Your task to perform on an android device: Open network settings Image 0: 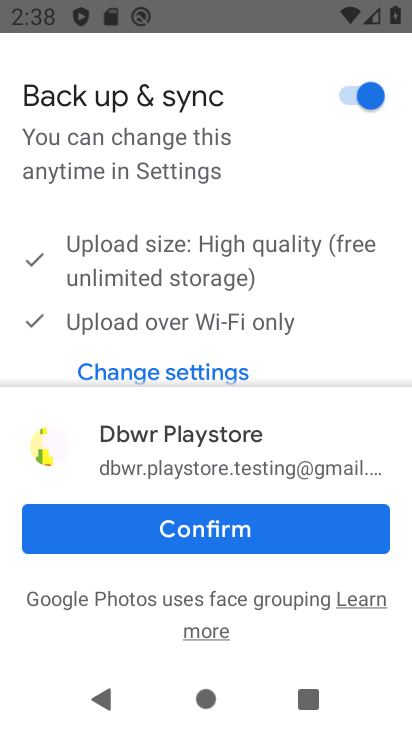
Step 0: press home button
Your task to perform on an android device: Open network settings Image 1: 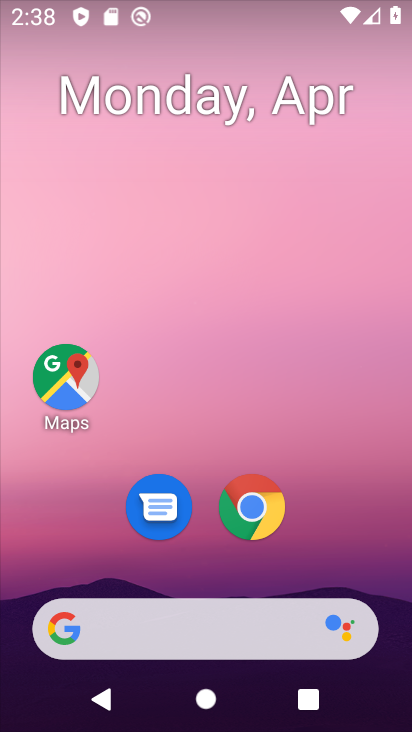
Step 1: drag from (359, 556) to (308, 44)
Your task to perform on an android device: Open network settings Image 2: 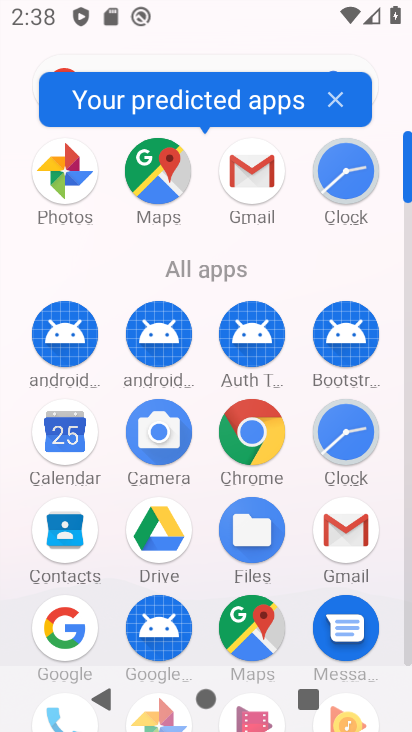
Step 2: click (409, 483)
Your task to perform on an android device: Open network settings Image 3: 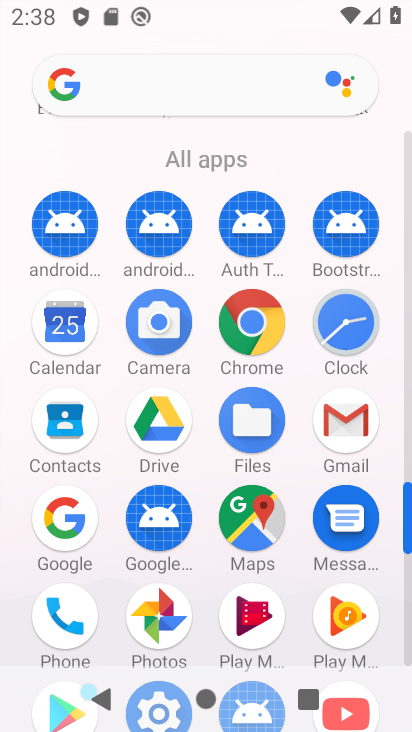
Step 3: click (406, 658)
Your task to perform on an android device: Open network settings Image 4: 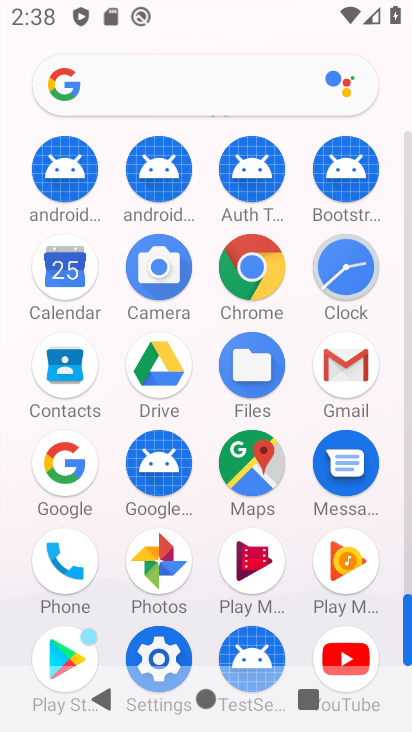
Step 4: click (156, 645)
Your task to perform on an android device: Open network settings Image 5: 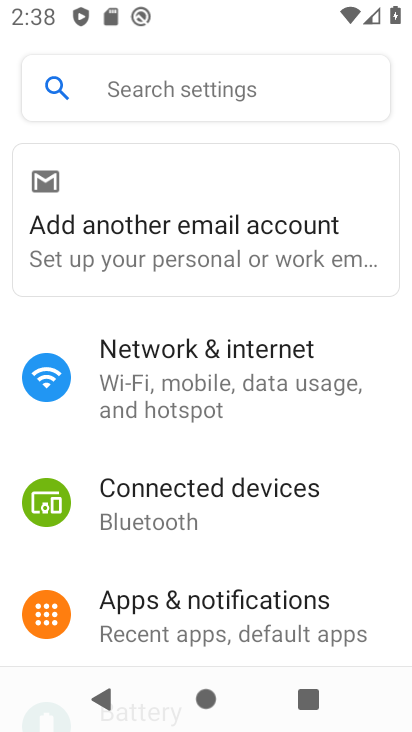
Step 5: click (258, 373)
Your task to perform on an android device: Open network settings Image 6: 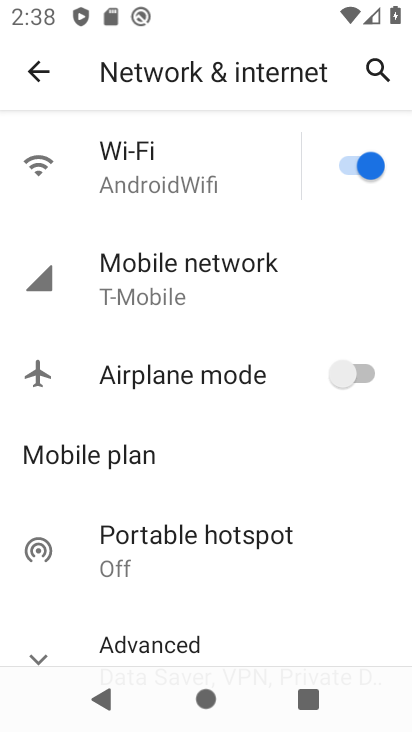
Step 6: task complete